Your task to perform on an android device: Go to Google Image 0: 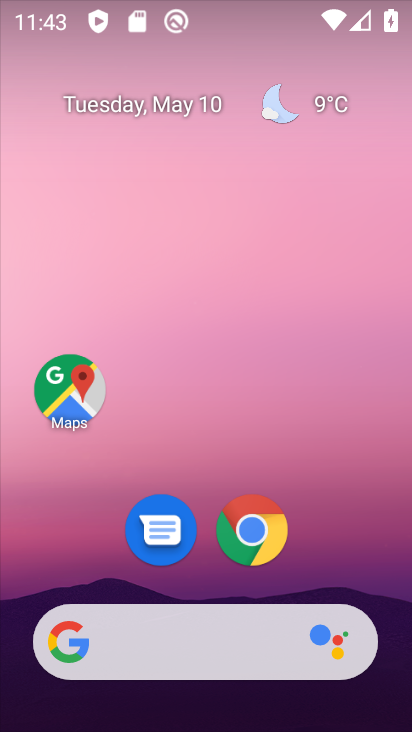
Step 0: drag from (354, 551) to (315, 45)
Your task to perform on an android device: Go to Google Image 1: 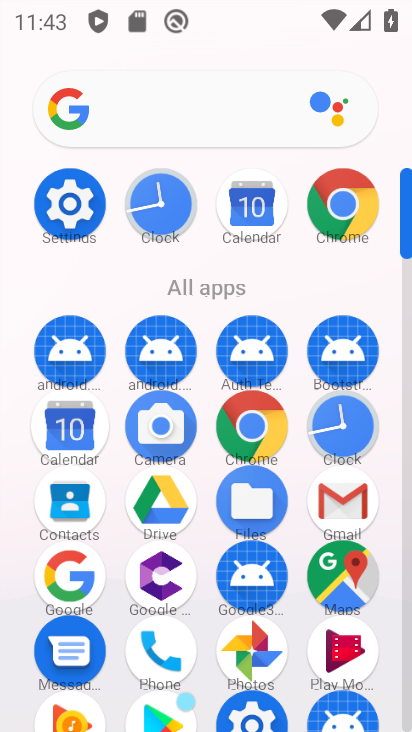
Step 1: click (33, 561)
Your task to perform on an android device: Go to Google Image 2: 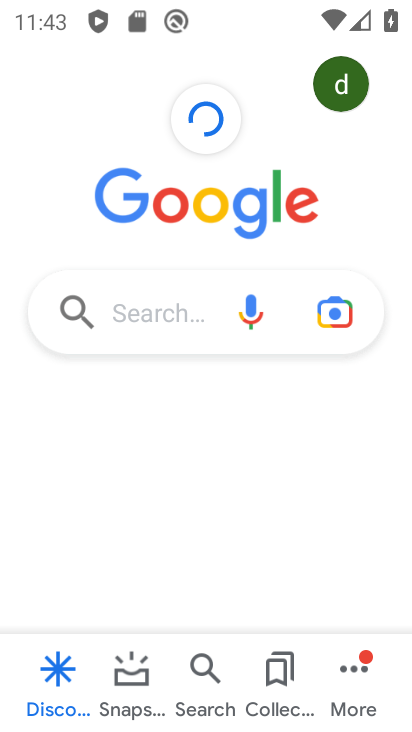
Step 2: task complete